Your task to perform on an android device: Open Android settings Image 0: 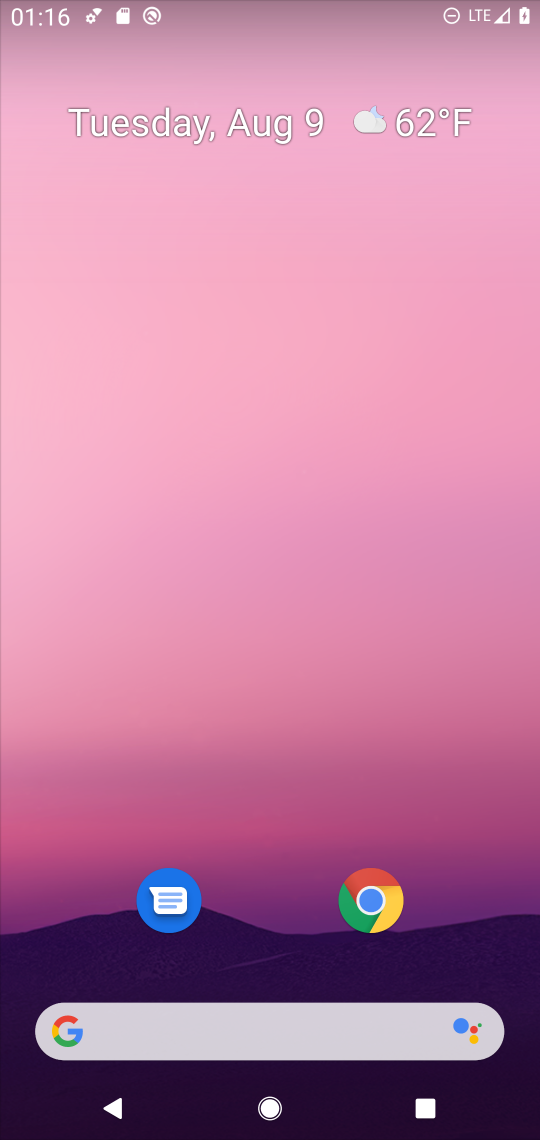
Step 0: press home button
Your task to perform on an android device: Open Android settings Image 1: 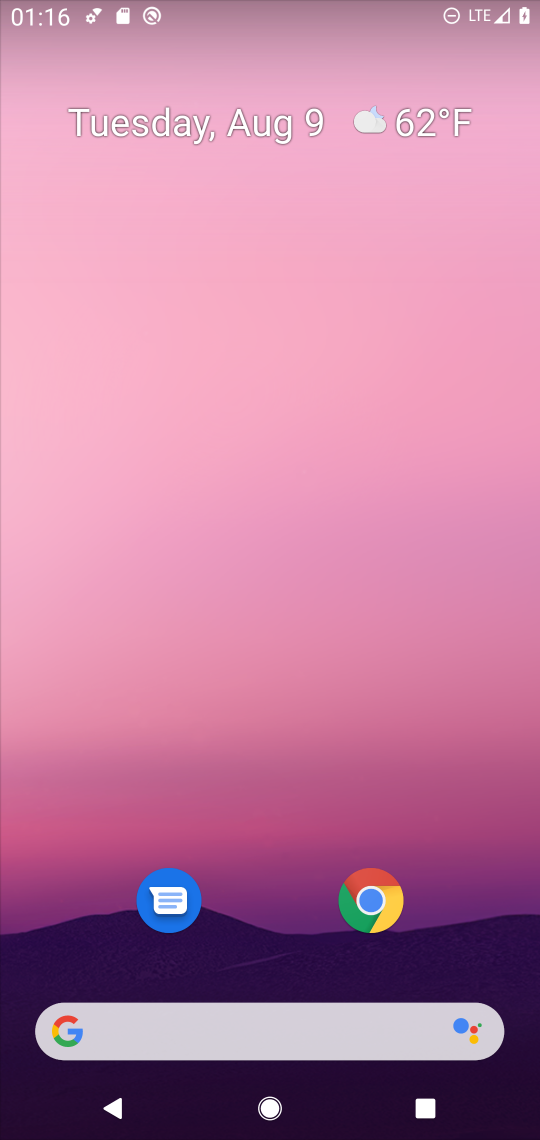
Step 1: drag from (280, 883) to (343, 136)
Your task to perform on an android device: Open Android settings Image 2: 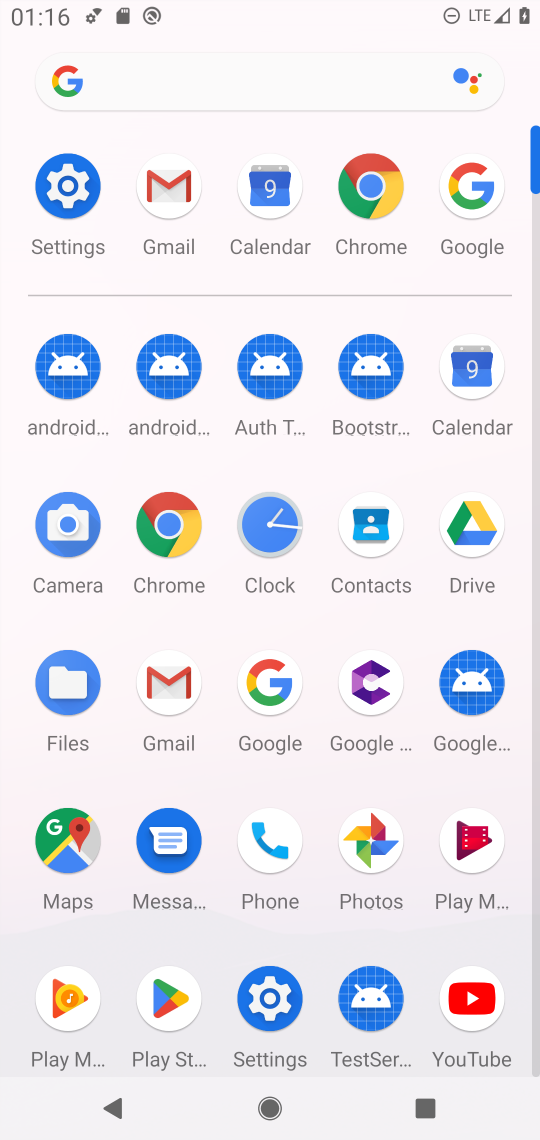
Step 2: click (79, 182)
Your task to perform on an android device: Open Android settings Image 3: 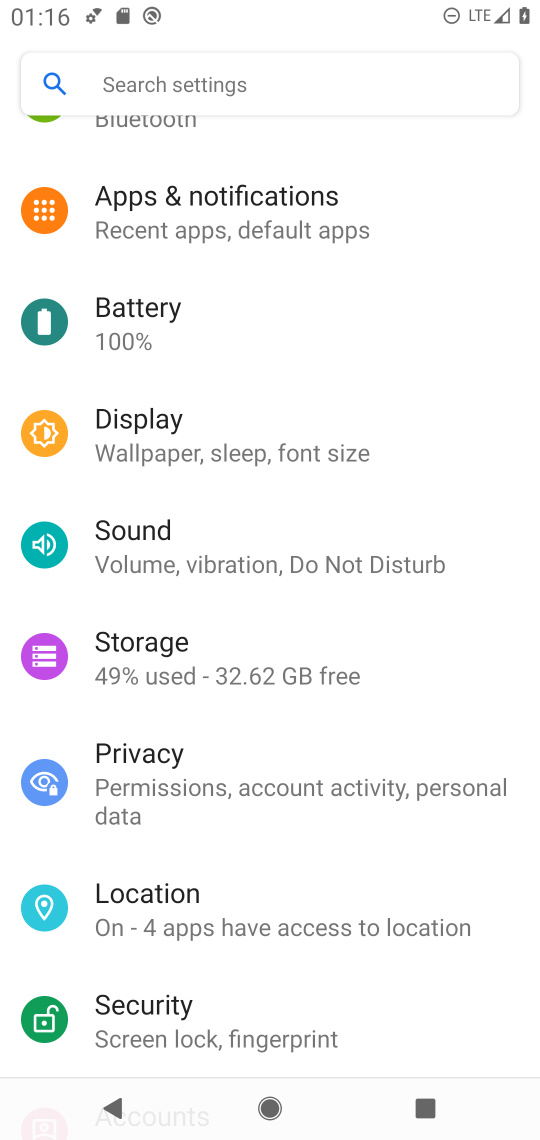
Step 3: drag from (471, 869) to (470, 372)
Your task to perform on an android device: Open Android settings Image 4: 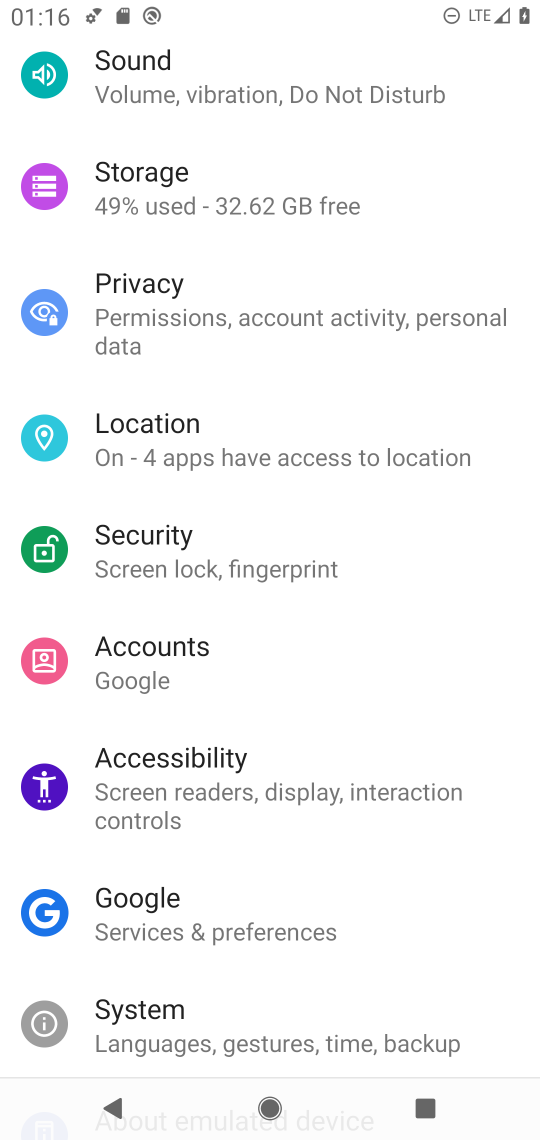
Step 4: drag from (446, 882) to (451, 477)
Your task to perform on an android device: Open Android settings Image 5: 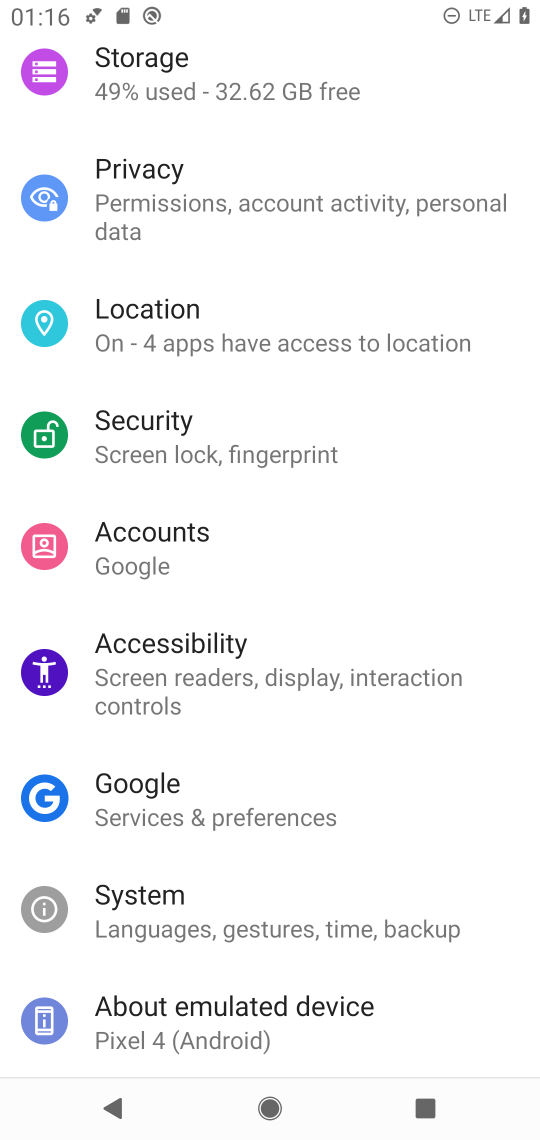
Step 5: click (258, 918)
Your task to perform on an android device: Open Android settings Image 6: 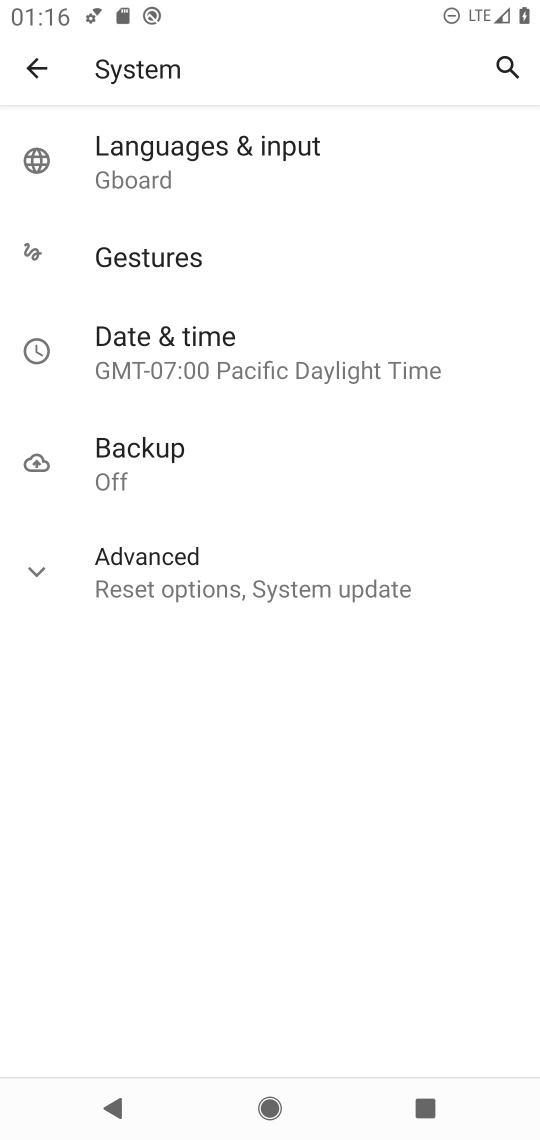
Step 6: click (230, 585)
Your task to perform on an android device: Open Android settings Image 7: 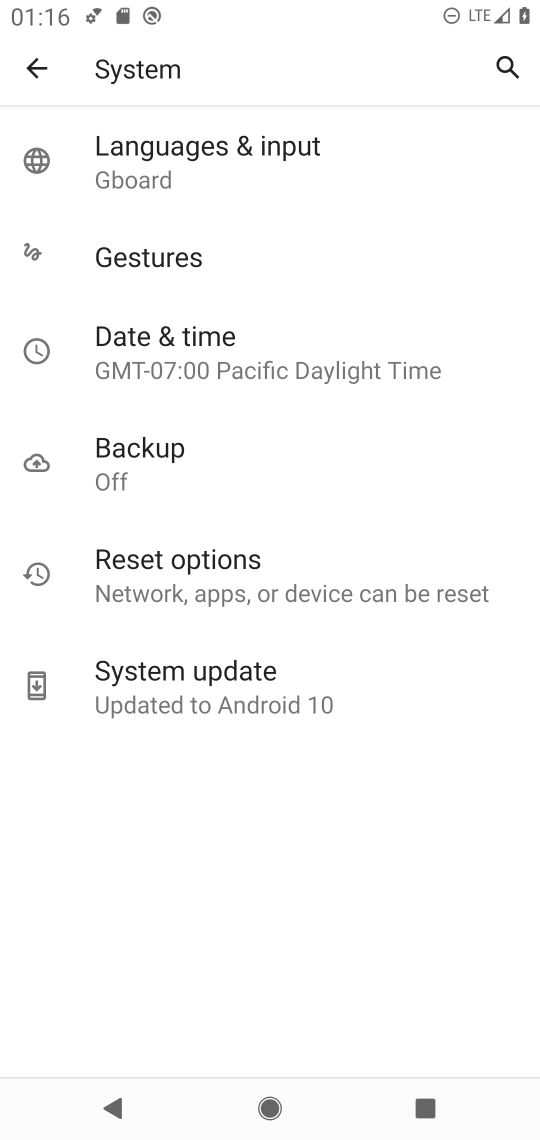
Step 7: task complete